Your task to perform on an android device: Open my contact list Image 0: 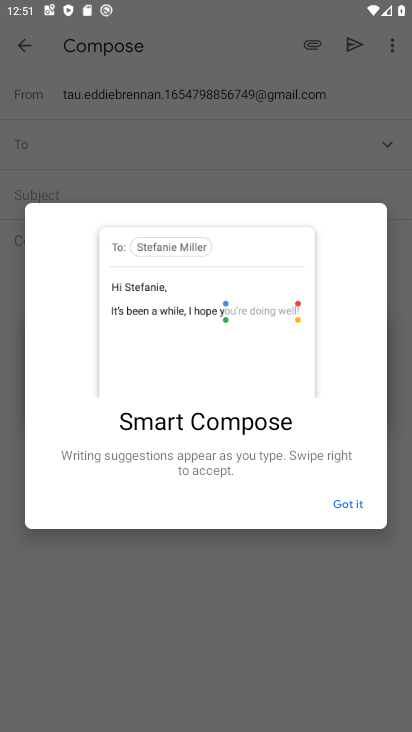
Step 0: press home button
Your task to perform on an android device: Open my contact list Image 1: 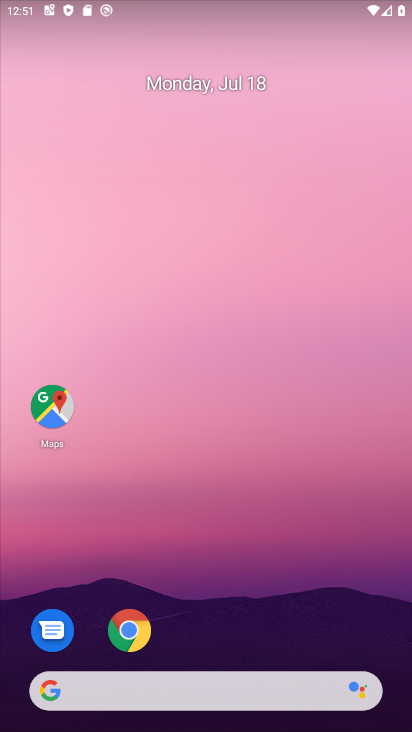
Step 1: drag from (333, 618) to (280, 131)
Your task to perform on an android device: Open my contact list Image 2: 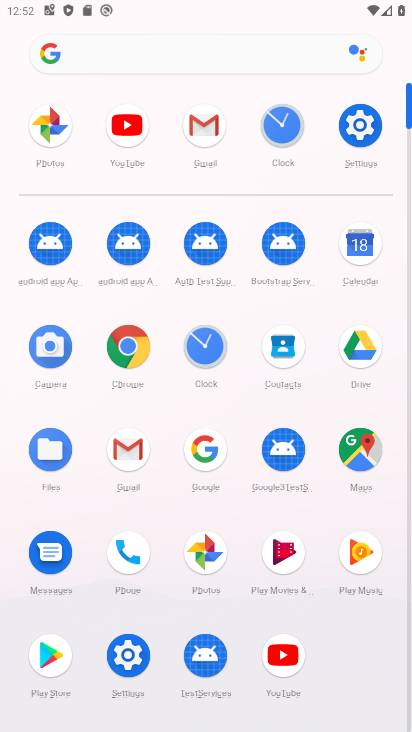
Step 2: click (295, 356)
Your task to perform on an android device: Open my contact list Image 3: 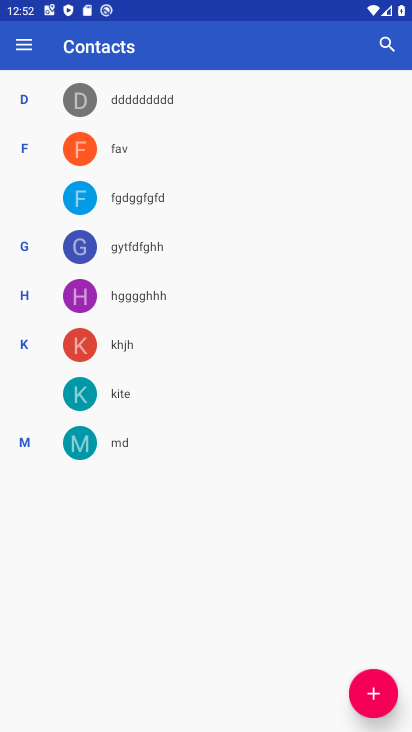
Step 3: task complete